Your task to perform on an android device: Open ESPN.com Image 0: 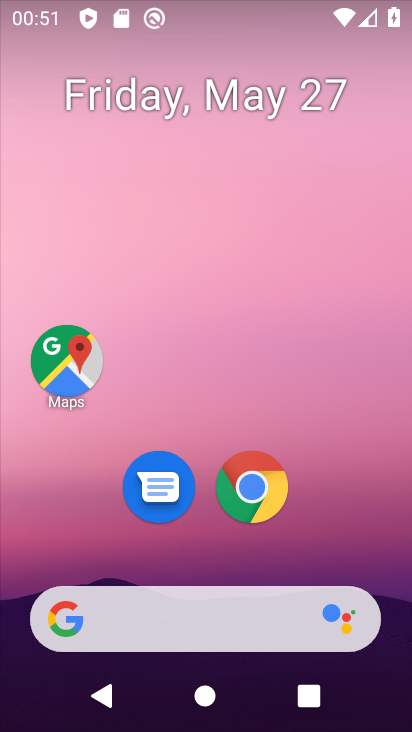
Step 0: click (254, 491)
Your task to perform on an android device: Open ESPN.com Image 1: 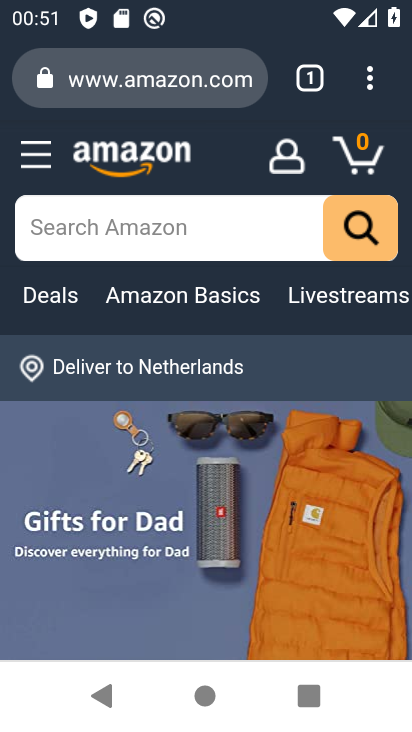
Step 1: click (319, 79)
Your task to perform on an android device: Open ESPN.com Image 2: 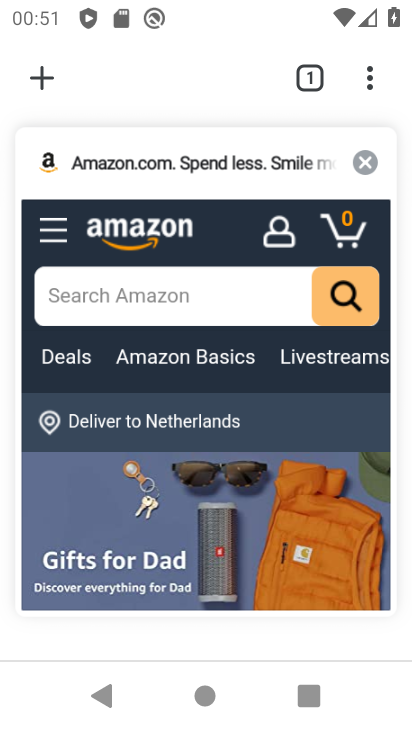
Step 2: click (363, 163)
Your task to perform on an android device: Open ESPN.com Image 3: 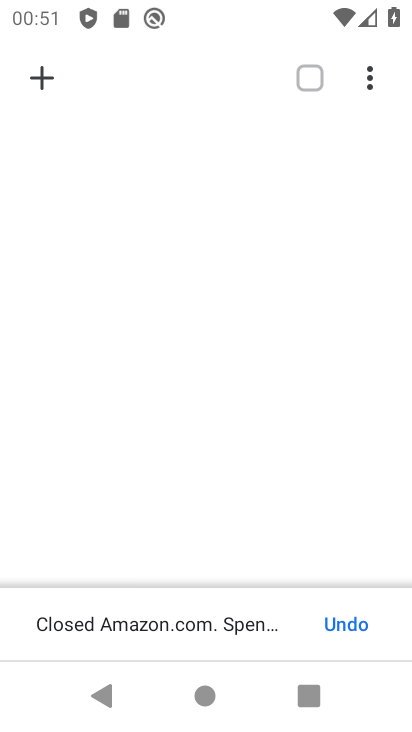
Step 3: click (44, 86)
Your task to perform on an android device: Open ESPN.com Image 4: 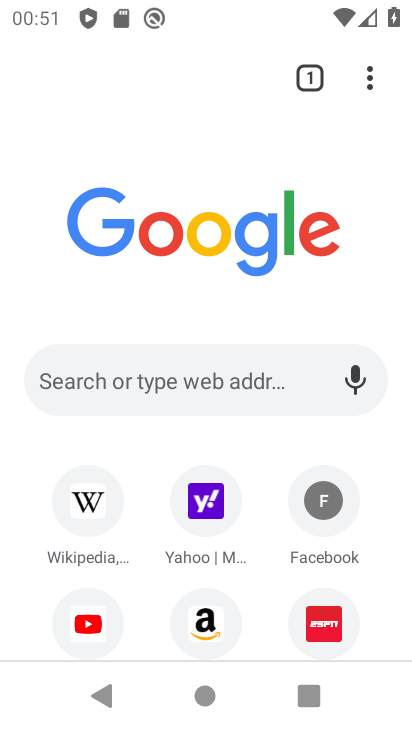
Step 4: click (327, 628)
Your task to perform on an android device: Open ESPN.com Image 5: 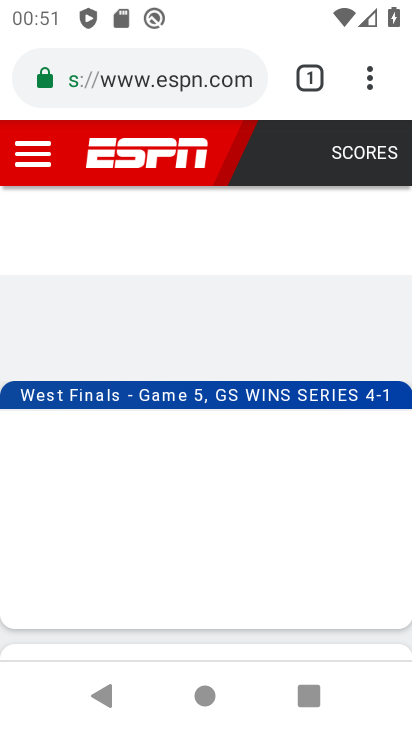
Step 5: task complete